Your task to perform on an android device: What does the iPhone 8 look like? Image 0: 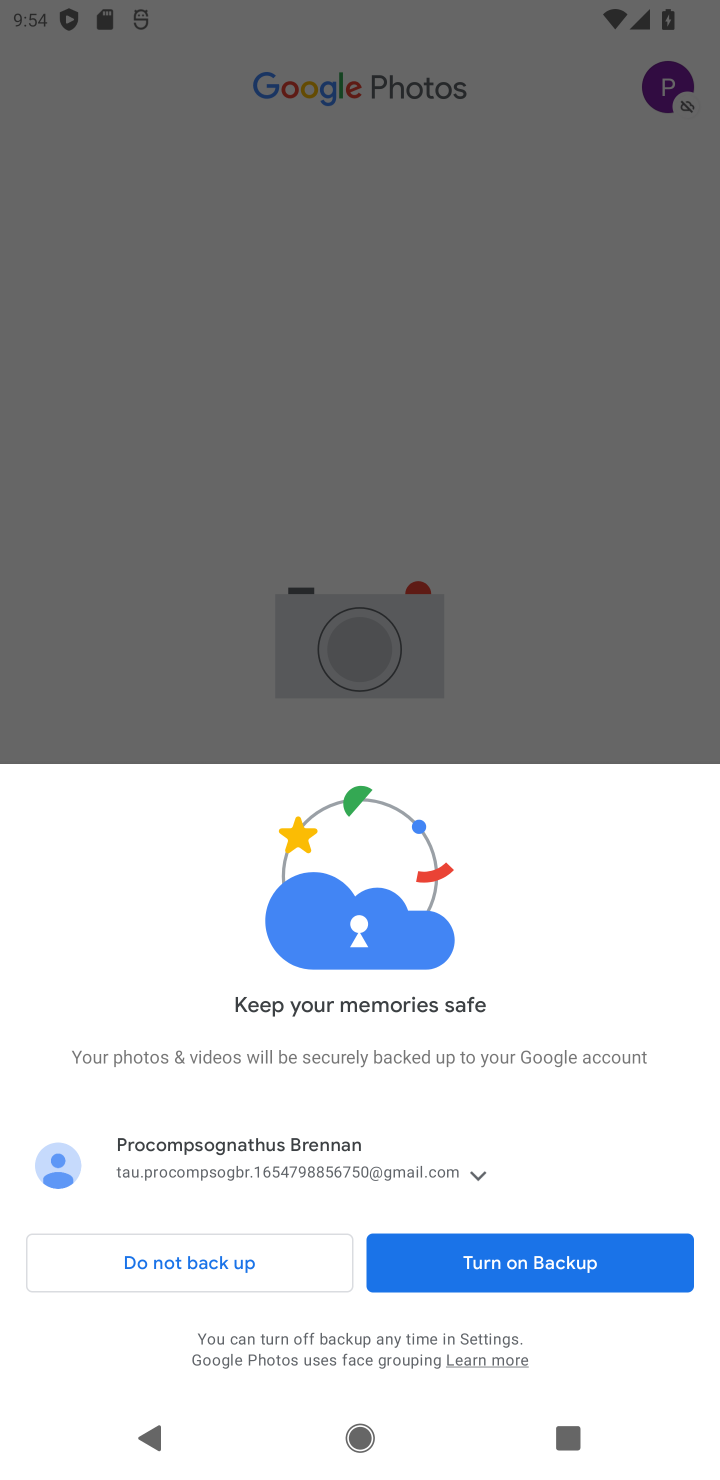
Step 0: click (699, 563)
Your task to perform on an android device: What does the iPhone 8 look like? Image 1: 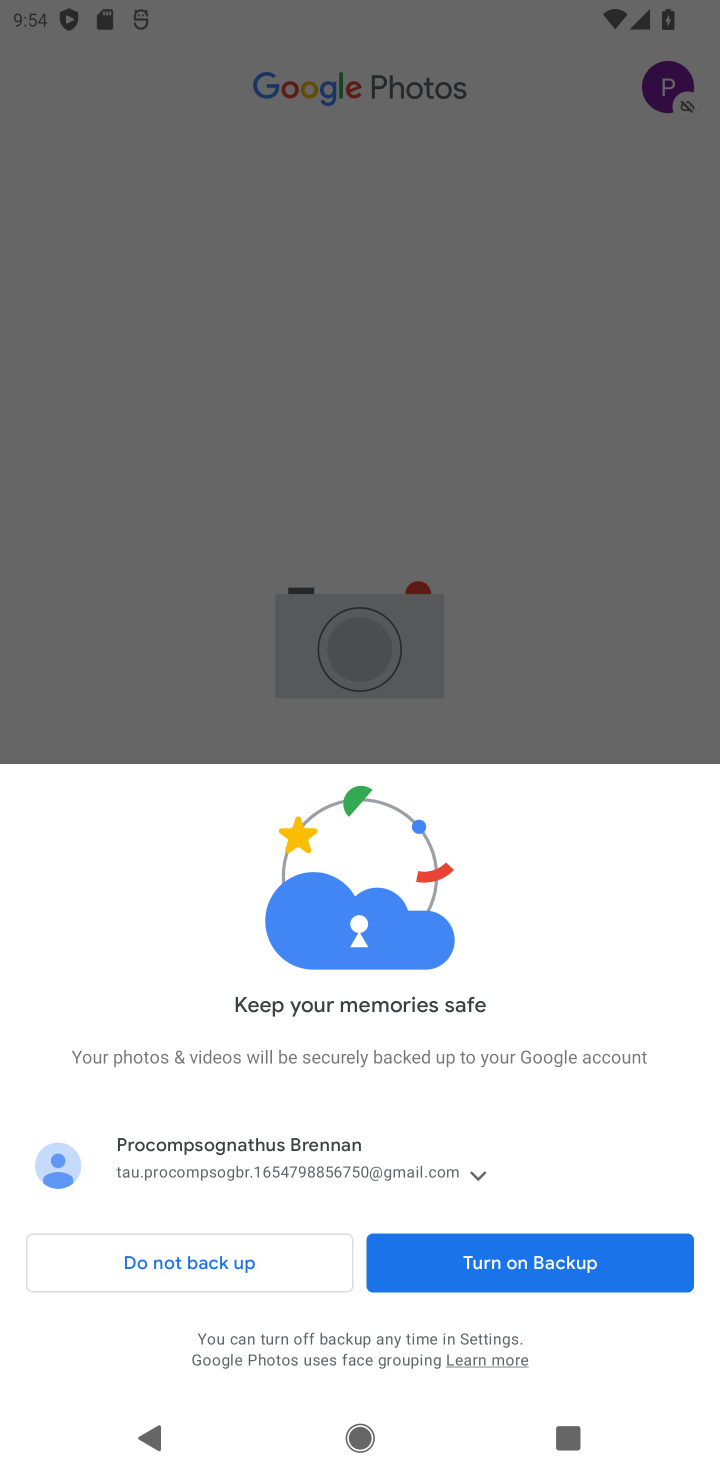
Step 1: press home button
Your task to perform on an android device: What does the iPhone 8 look like? Image 2: 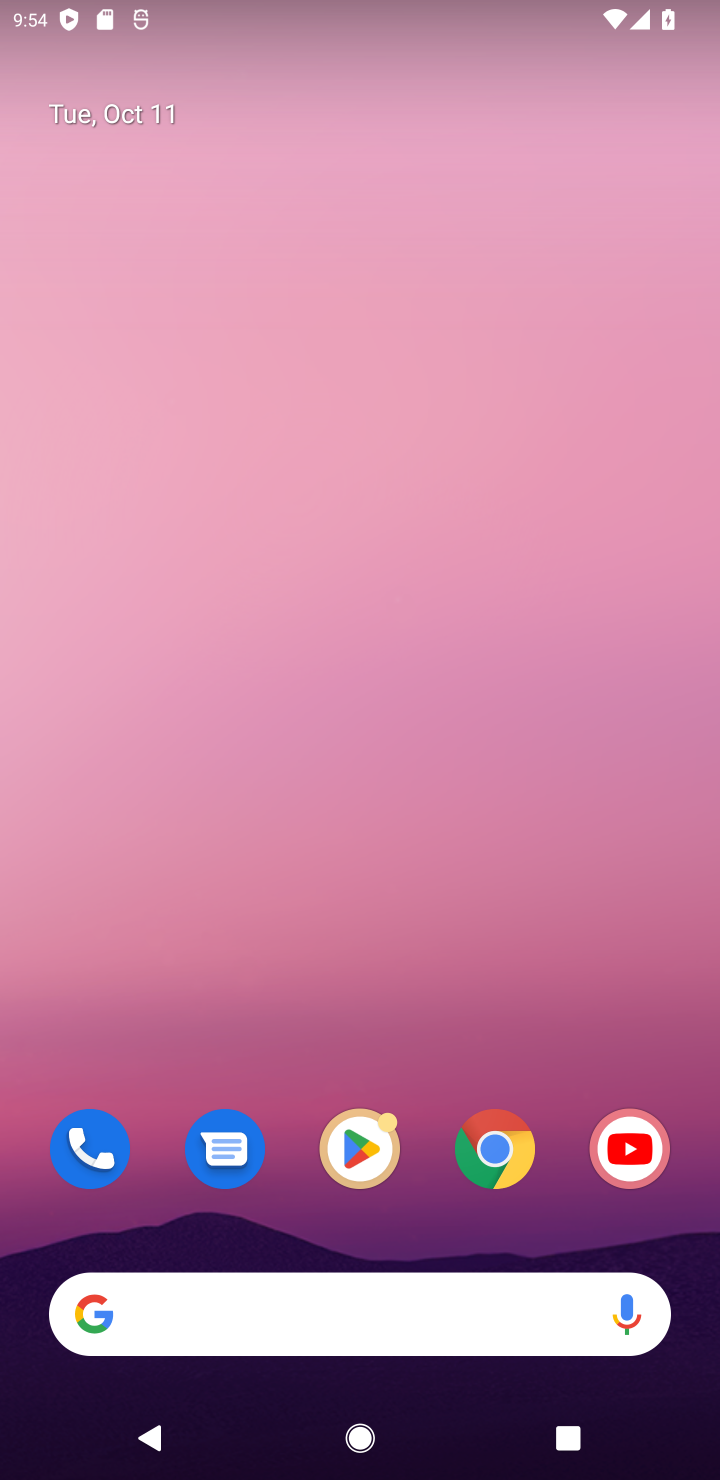
Step 2: drag from (541, 1168) to (446, 303)
Your task to perform on an android device: What does the iPhone 8 look like? Image 3: 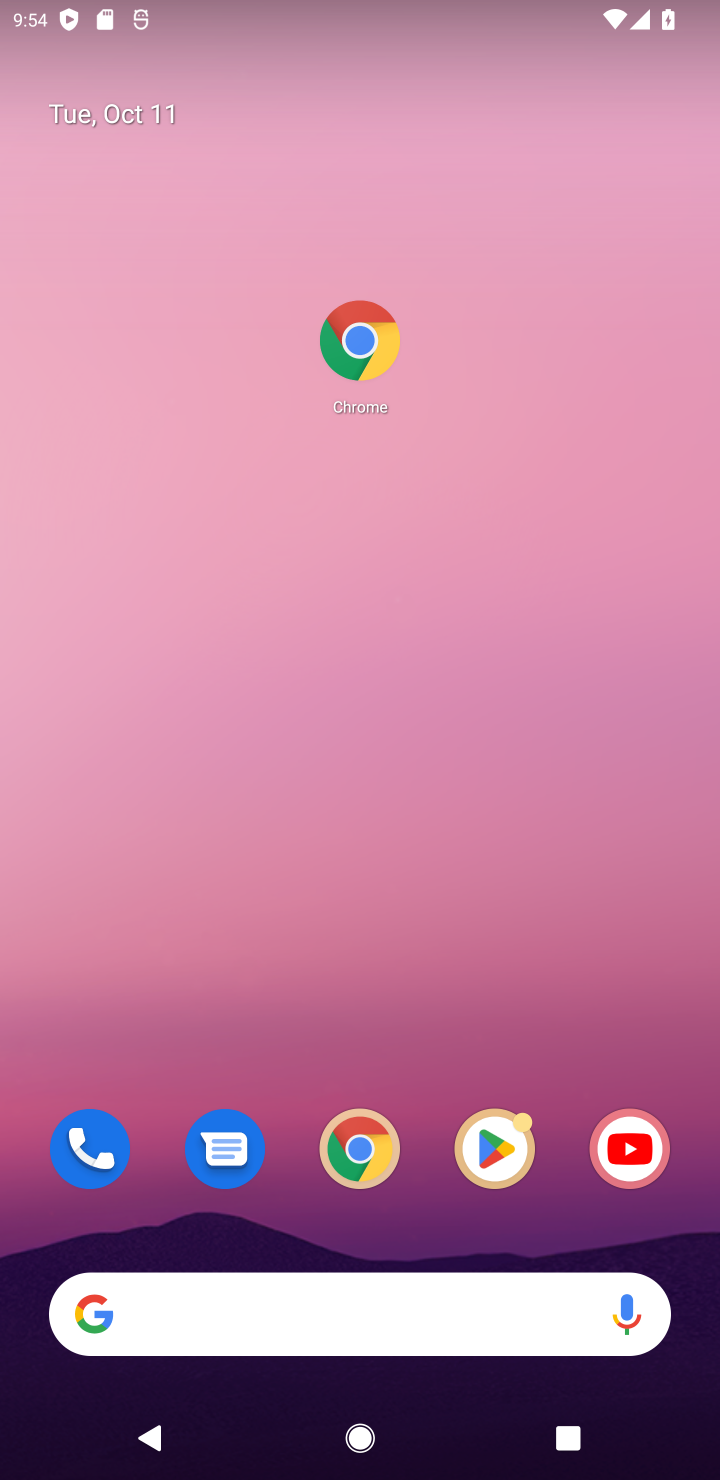
Step 3: drag from (330, 1201) to (373, 424)
Your task to perform on an android device: What does the iPhone 8 look like? Image 4: 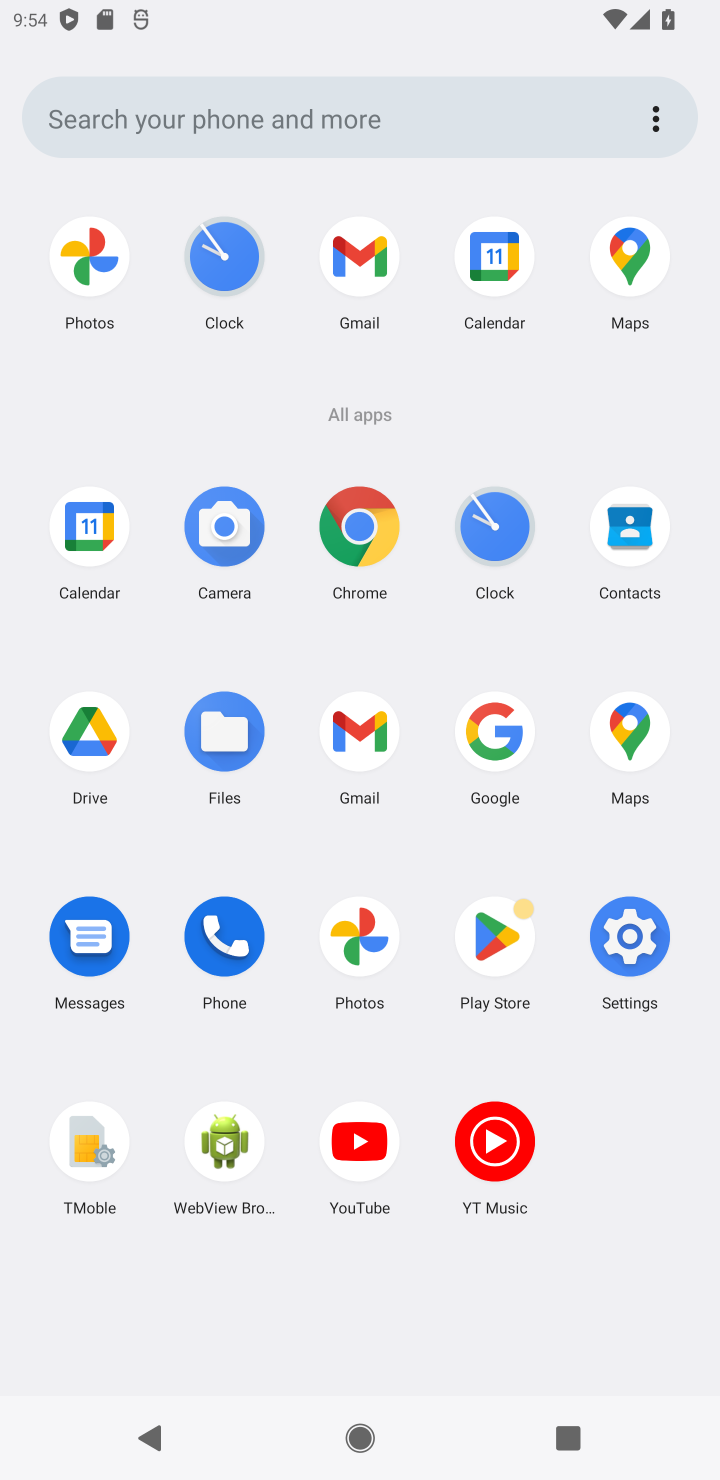
Step 4: click (367, 514)
Your task to perform on an android device: What does the iPhone 8 look like? Image 5: 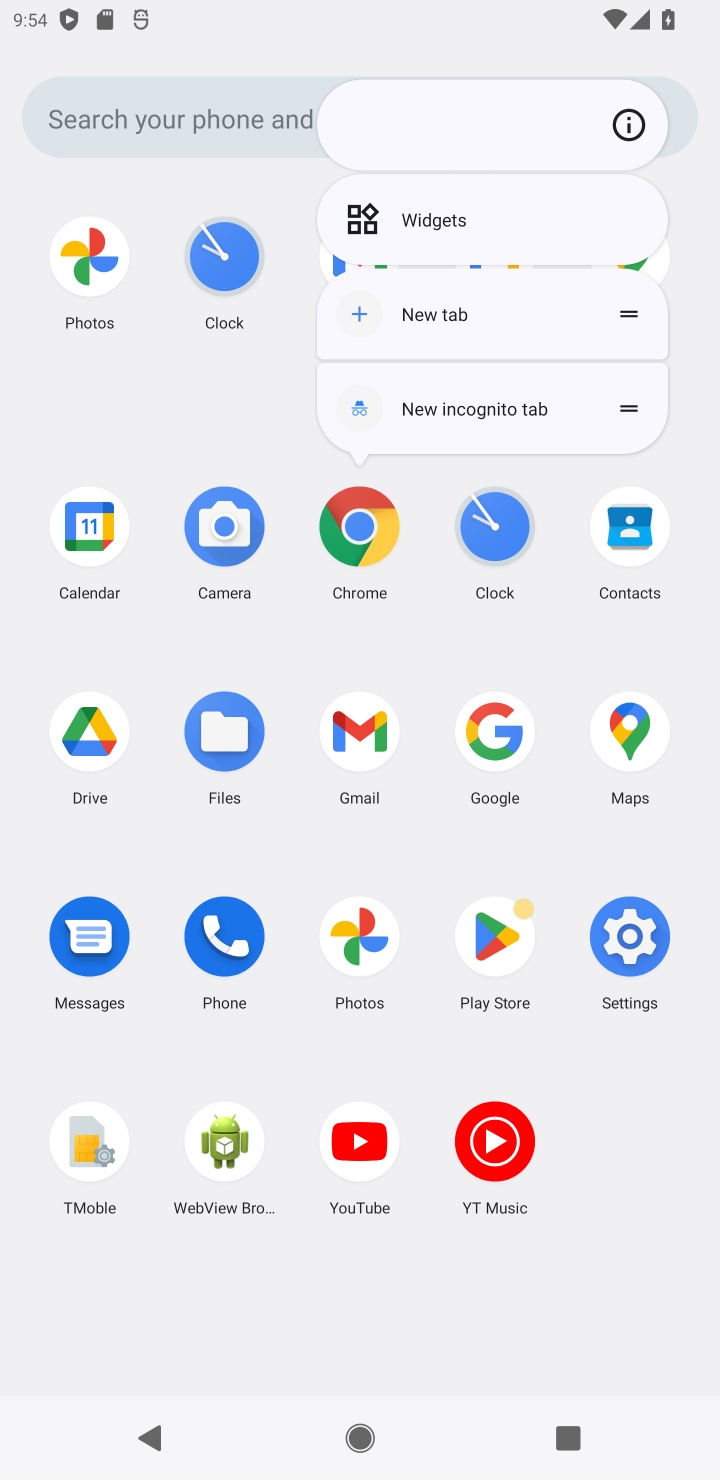
Step 5: click (364, 512)
Your task to perform on an android device: What does the iPhone 8 look like? Image 6: 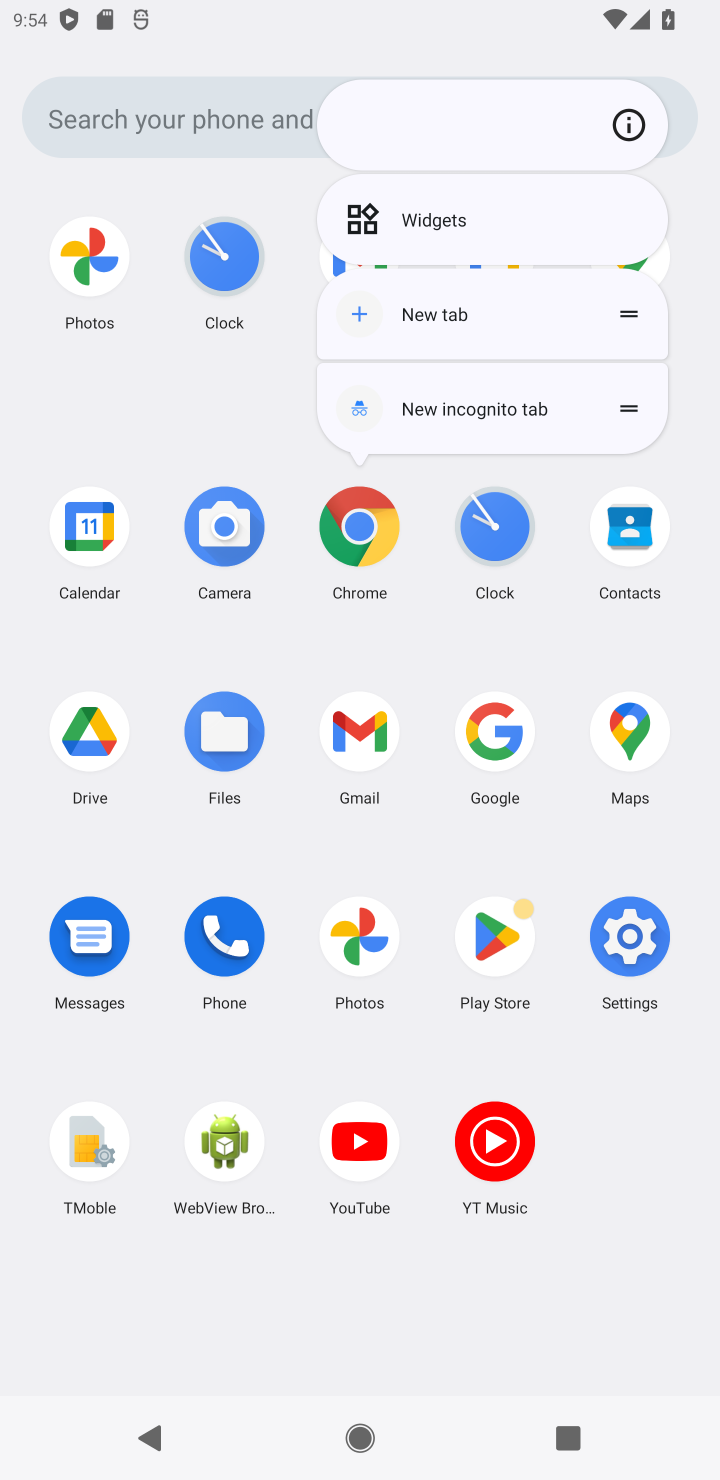
Step 6: click (362, 532)
Your task to perform on an android device: What does the iPhone 8 look like? Image 7: 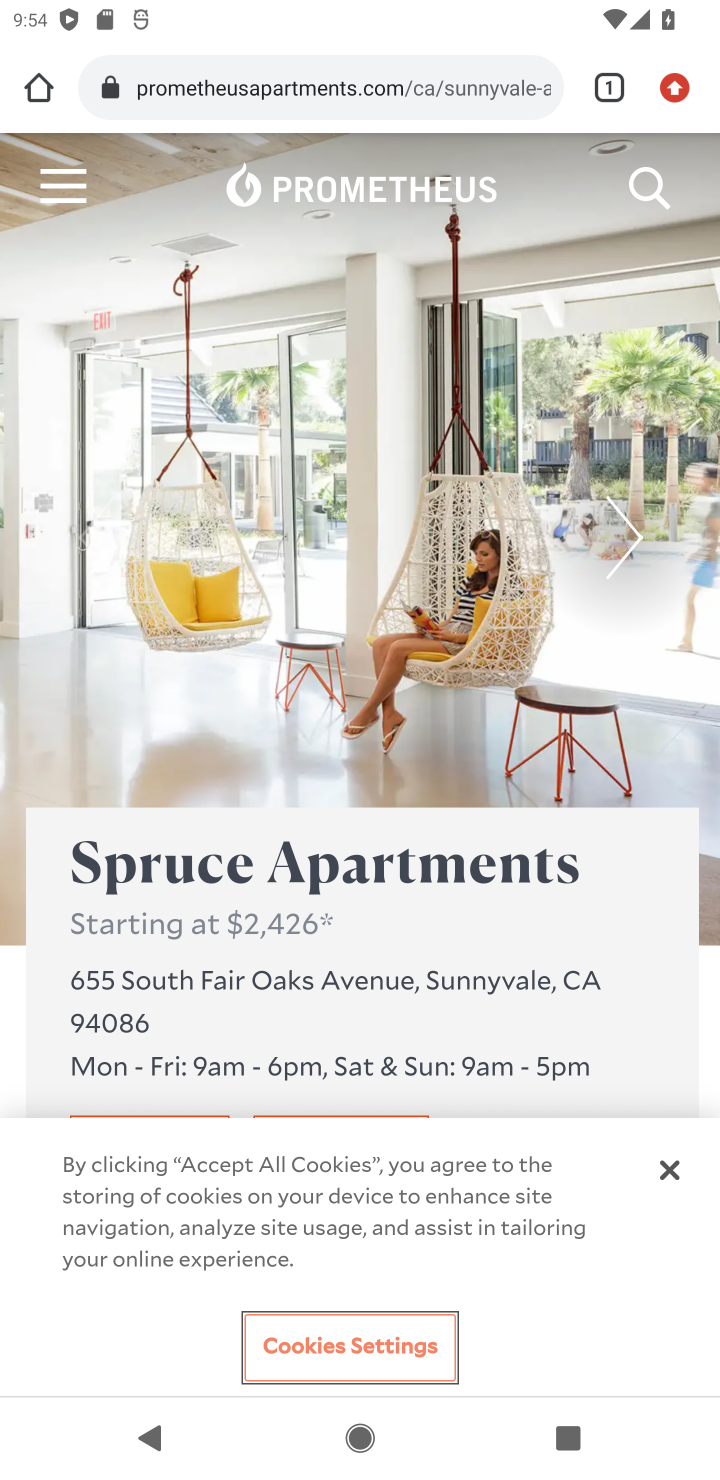
Step 7: click (304, 88)
Your task to perform on an android device: What does the iPhone 8 look like? Image 8: 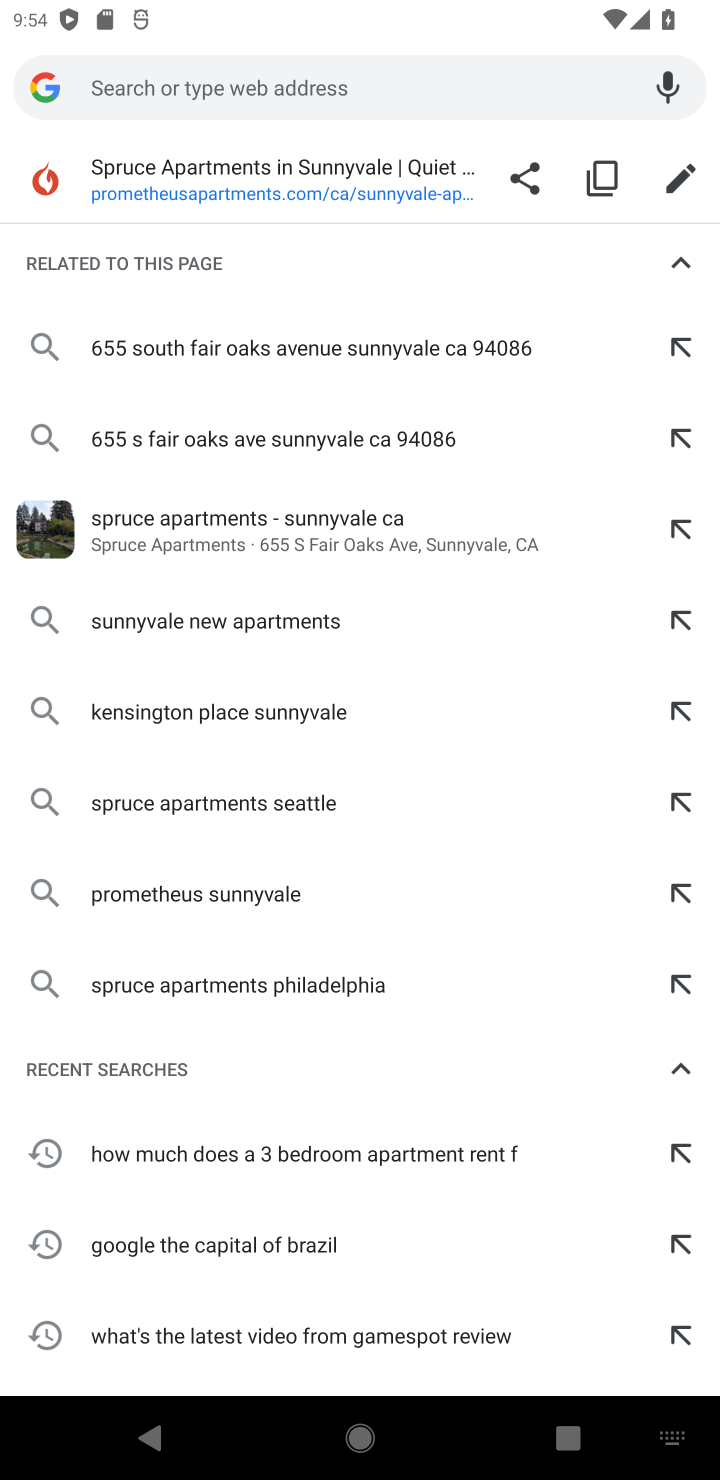
Step 8: type "What does the iPhone 8 look like?"
Your task to perform on an android device: What does the iPhone 8 look like? Image 9: 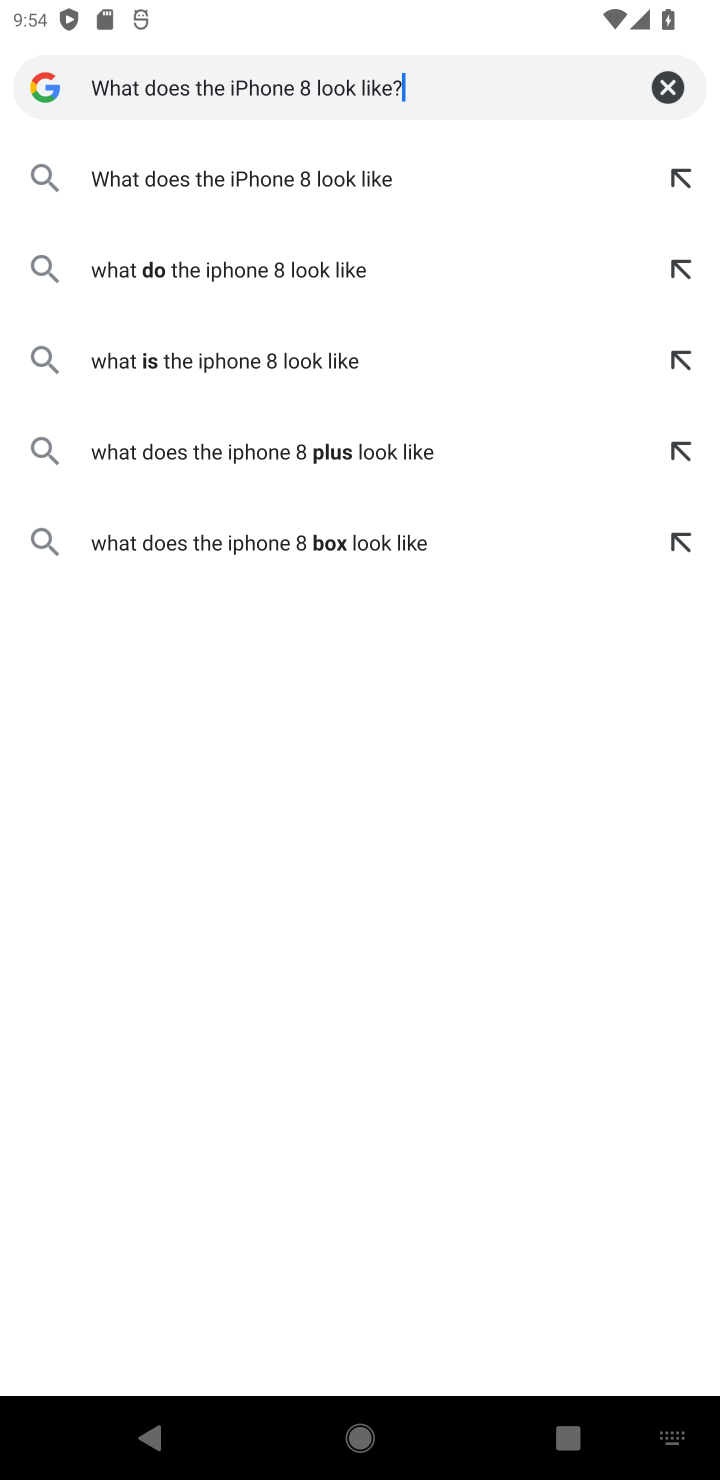
Step 9: press enter
Your task to perform on an android device: What does the iPhone 8 look like? Image 10: 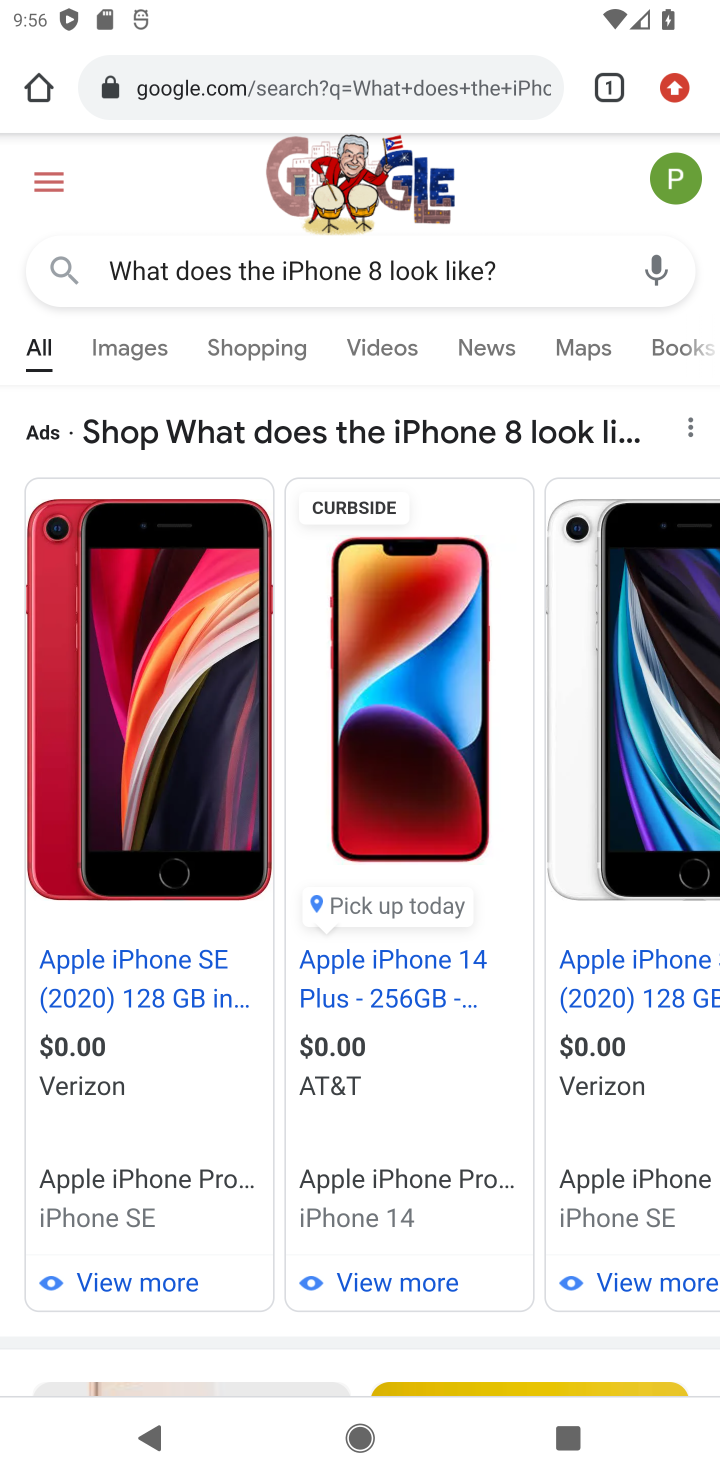
Step 10: task complete